Your task to perform on an android device: toggle data saver in the chrome app Image 0: 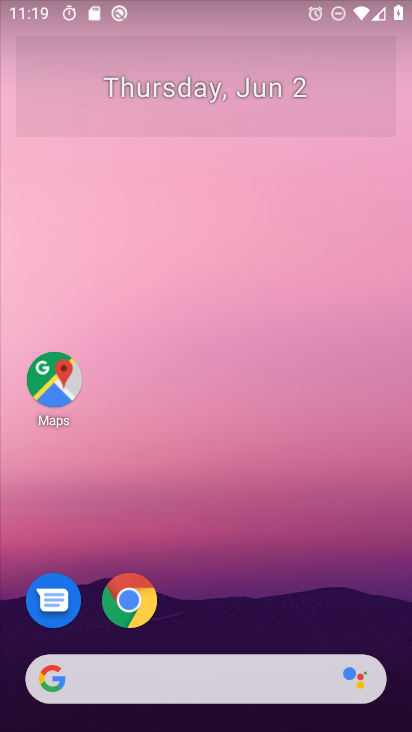
Step 0: click (144, 595)
Your task to perform on an android device: toggle data saver in the chrome app Image 1: 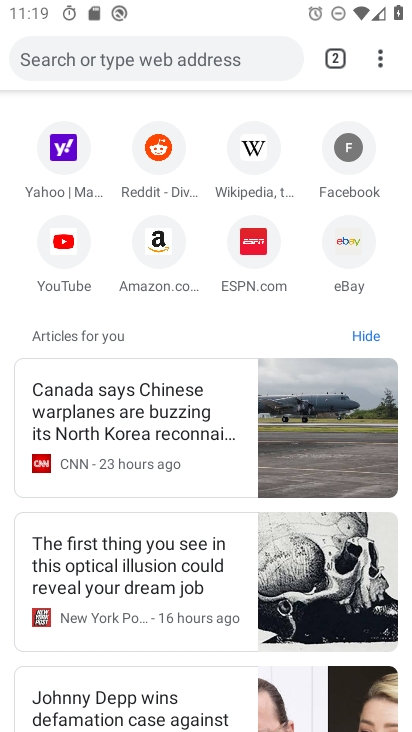
Step 1: click (376, 70)
Your task to perform on an android device: toggle data saver in the chrome app Image 2: 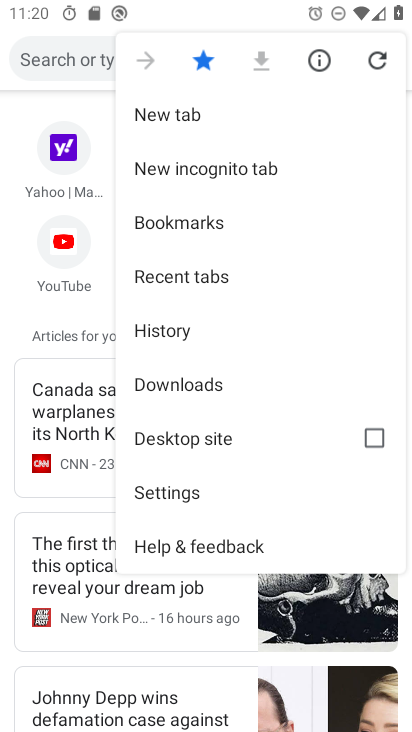
Step 2: click (180, 487)
Your task to perform on an android device: toggle data saver in the chrome app Image 3: 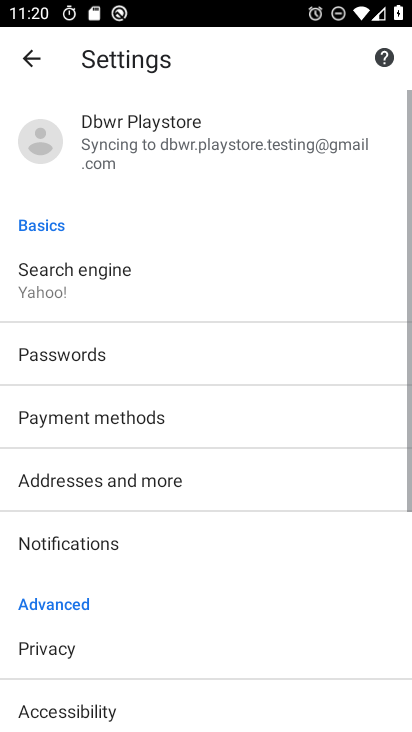
Step 3: drag from (168, 623) to (151, 206)
Your task to perform on an android device: toggle data saver in the chrome app Image 4: 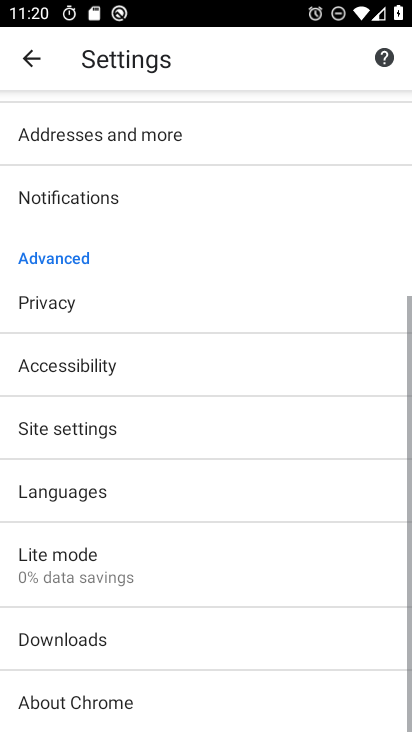
Step 4: click (138, 555)
Your task to perform on an android device: toggle data saver in the chrome app Image 5: 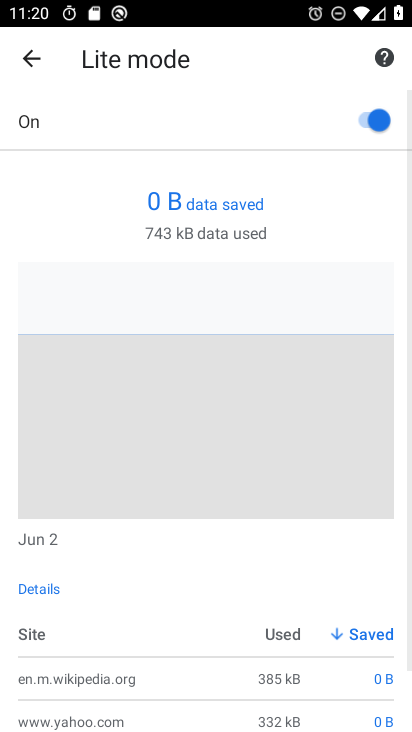
Step 5: click (376, 120)
Your task to perform on an android device: toggle data saver in the chrome app Image 6: 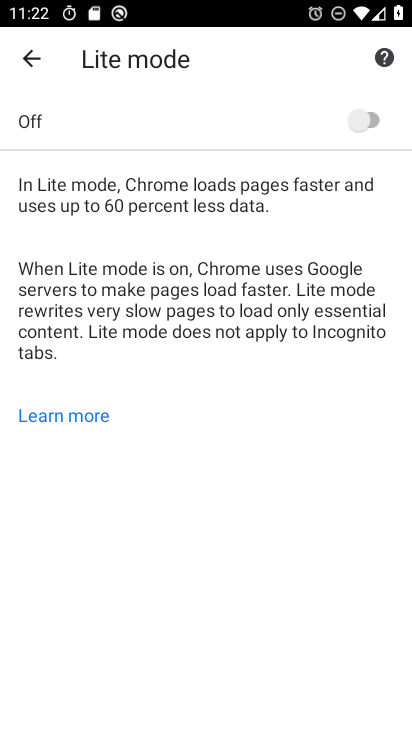
Step 6: task complete